Your task to perform on an android device: Open calendar and show me the third week of next month Image 0: 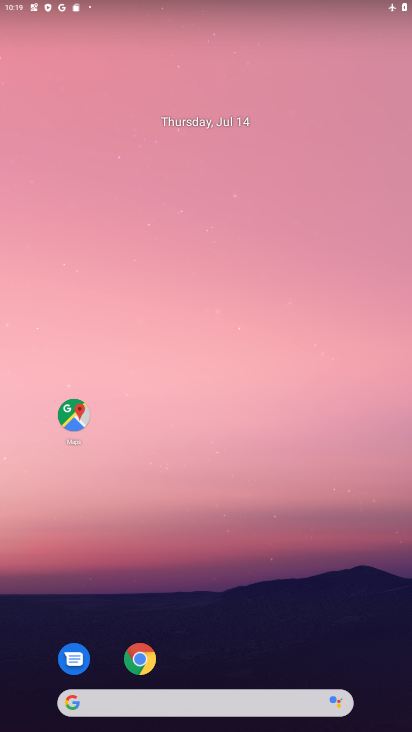
Step 0: drag from (278, 484) to (273, 141)
Your task to perform on an android device: Open calendar and show me the third week of next month Image 1: 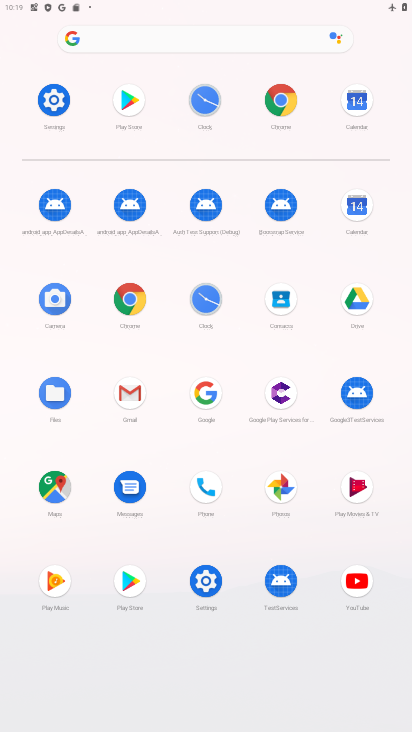
Step 1: click (350, 209)
Your task to perform on an android device: Open calendar and show me the third week of next month Image 2: 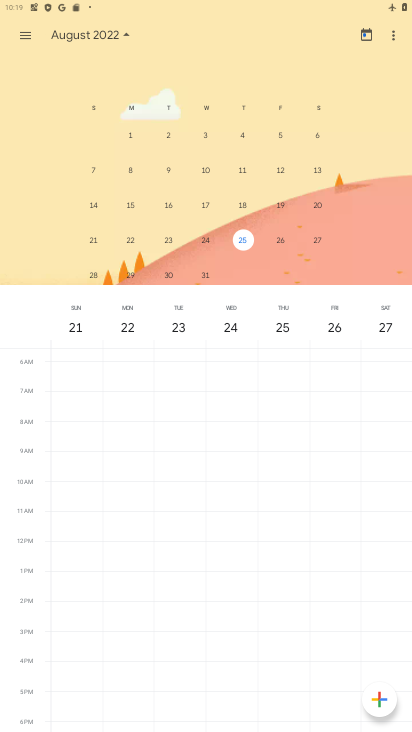
Step 2: click (136, 215)
Your task to perform on an android device: Open calendar and show me the third week of next month Image 3: 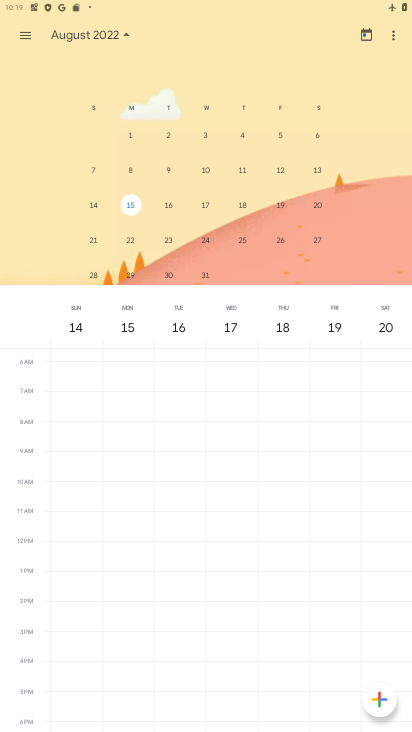
Step 3: click (169, 209)
Your task to perform on an android device: Open calendar and show me the third week of next month Image 4: 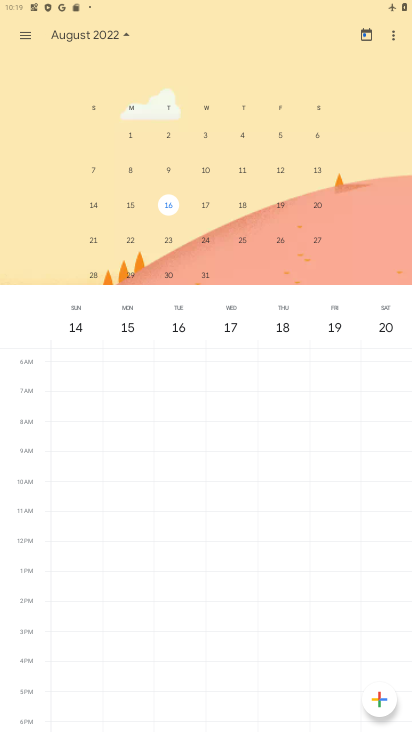
Step 4: task complete